Your task to perform on an android device: Open Youtube and go to "Your channel" Image 0: 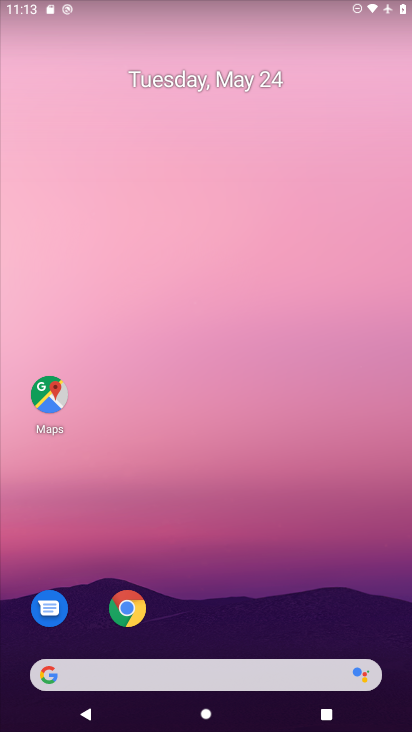
Step 0: drag from (387, 624) to (327, 68)
Your task to perform on an android device: Open Youtube and go to "Your channel" Image 1: 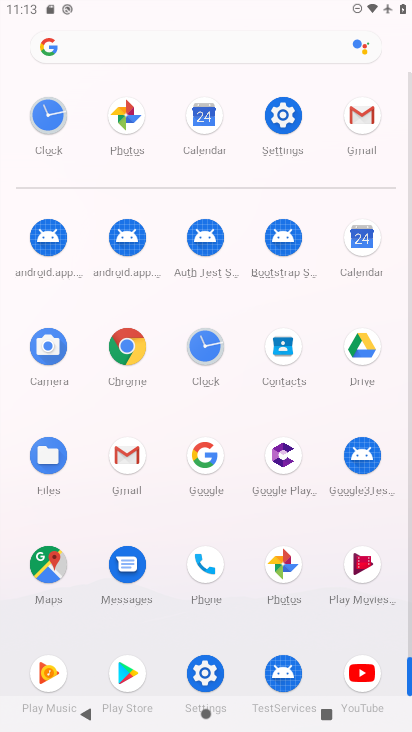
Step 1: click (362, 672)
Your task to perform on an android device: Open Youtube and go to "Your channel" Image 2: 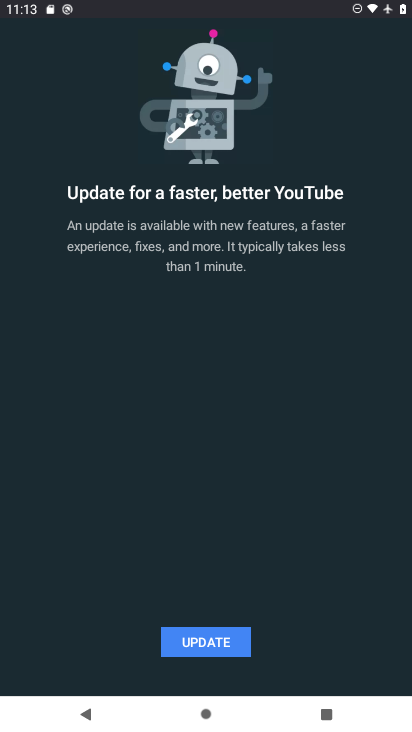
Step 2: click (207, 640)
Your task to perform on an android device: Open Youtube and go to "Your channel" Image 3: 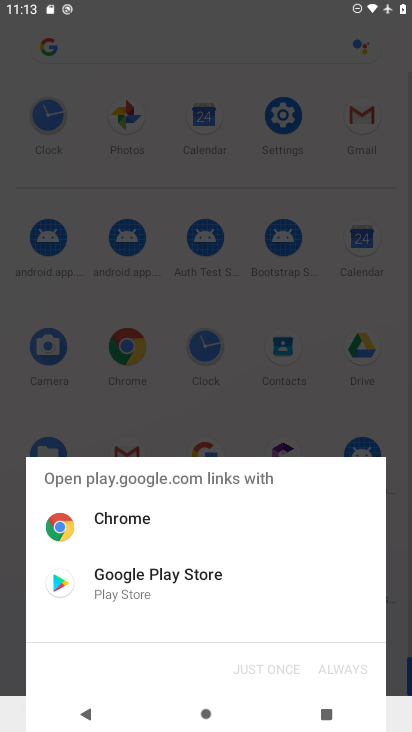
Step 3: click (142, 577)
Your task to perform on an android device: Open Youtube and go to "Your channel" Image 4: 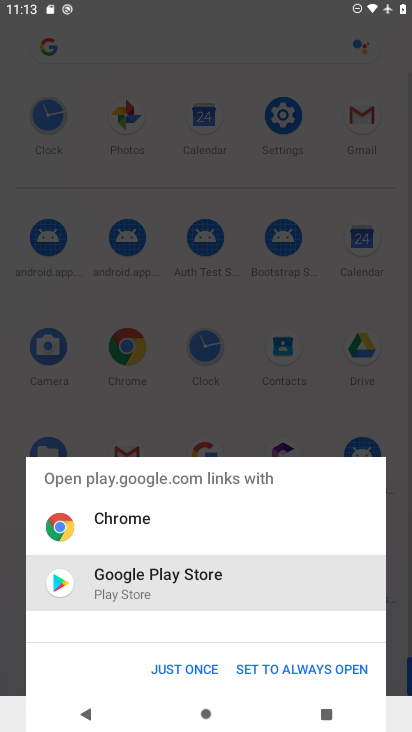
Step 4: click (179, 670)
Your task to perform on an android device: Open Youtube and go to "Your channel" Image 5: 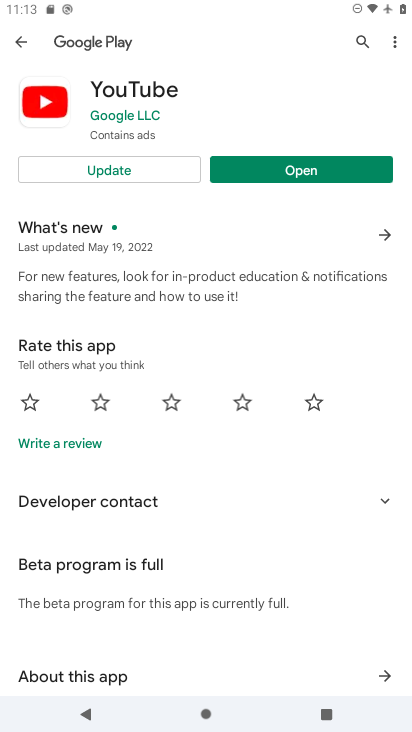
Step 5: click (131, 168)
Your task to perform on an android device: Open Youtube and go to "Your channel" Image 6: 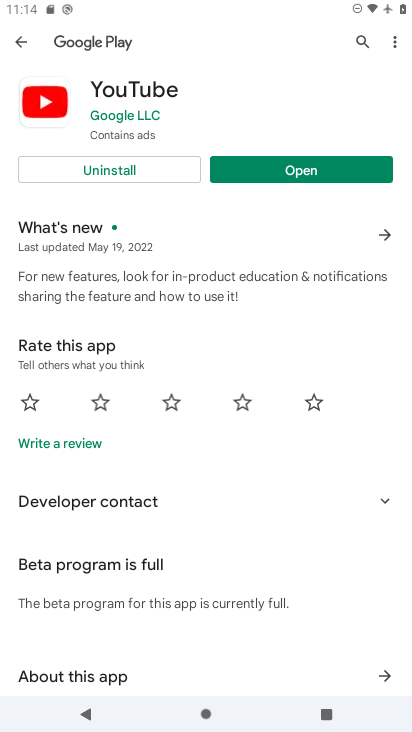
Step 6: click (302, 170)
Your task to perform on an android device: Open Youtube and go to "Your channel" Image 7: 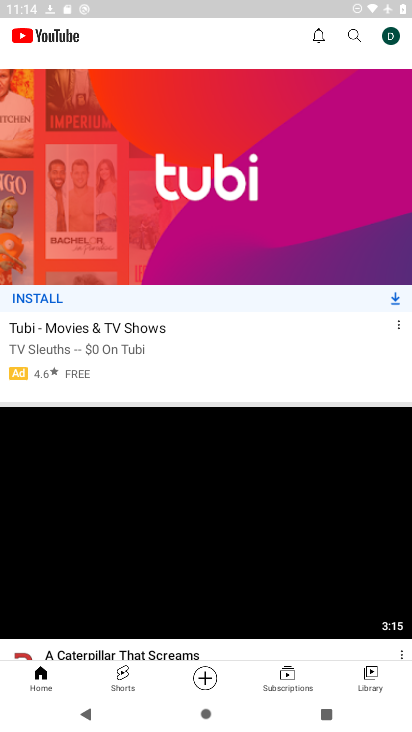
Step 7: click (390, 38)
Your task to perform on an android device: Open Youtube and go to "Your channel" Image 8: 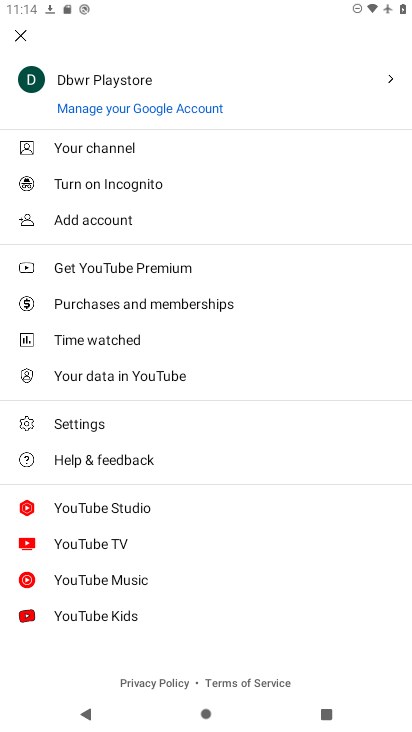
Step 8: click (88, 147)
Your task to perform on an android device: Open Youtube and go to "Your channel" Image 9: 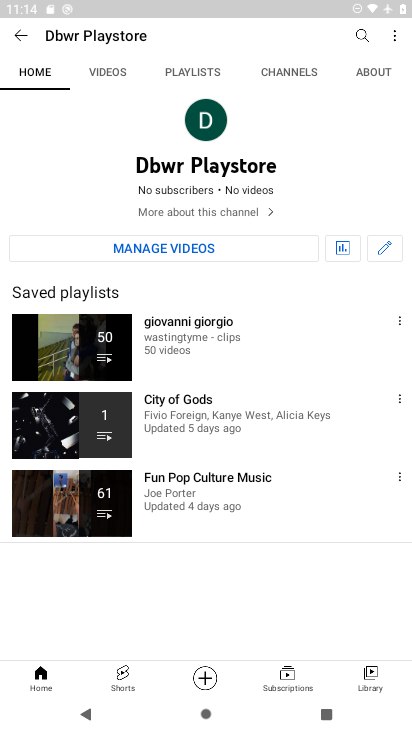
Step 9: task complete